Your task to perform on an android device: Go to settings Image 0: 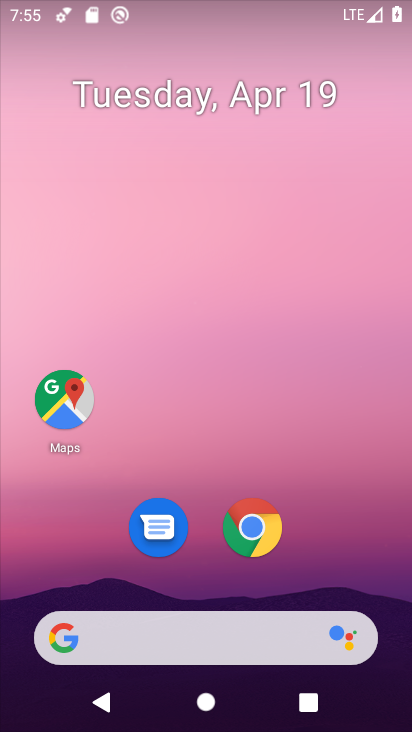
Step 0: drag from (358, 559) to (333, 147)
Your task to perform on an android device: Go to settings Image 1: 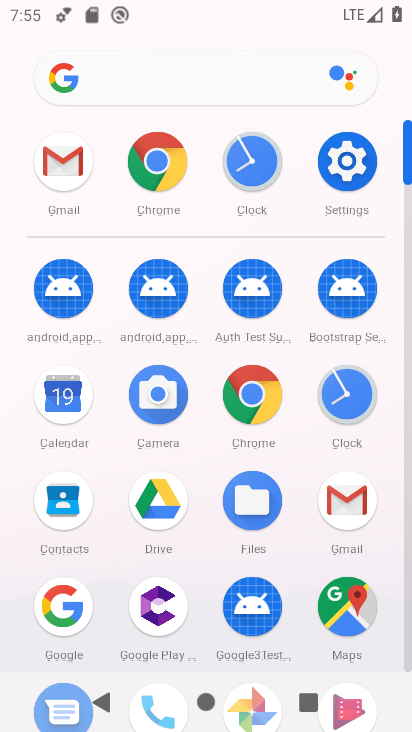
Step 1: click (344, 170)
Your task to perform on an android device: Go to settings Image 2: 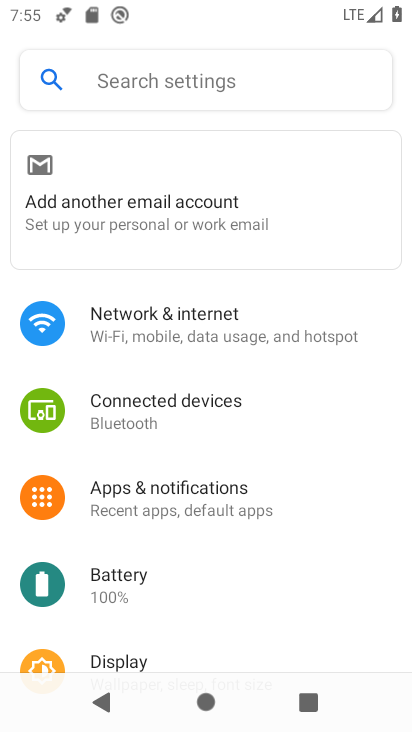
Step 2: task complete